Your task to perform on an android device: set the timer Image 0: 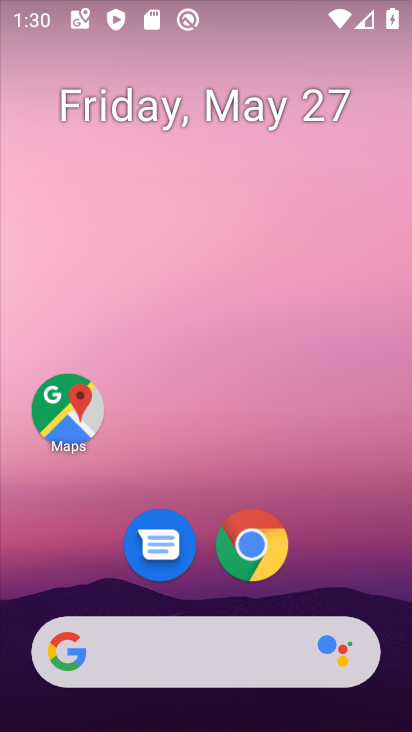
Step 0: drag from (342, 544) to (197, 7)
Your task to perform on an android device: set the timer Image 1: 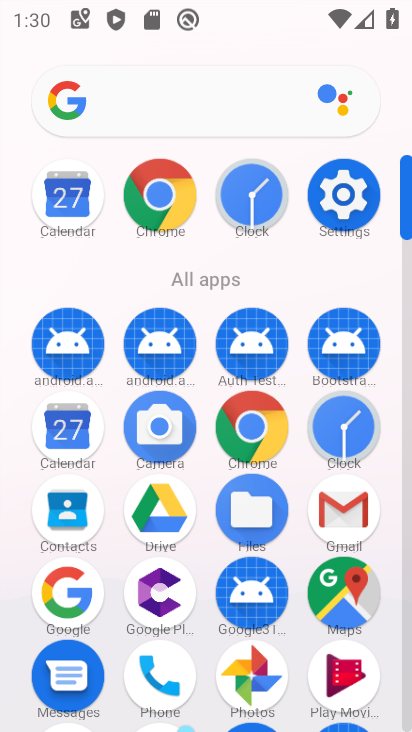
Step 1: click (250, 187)
Your task to perform on an android device: set the timer Image 2: 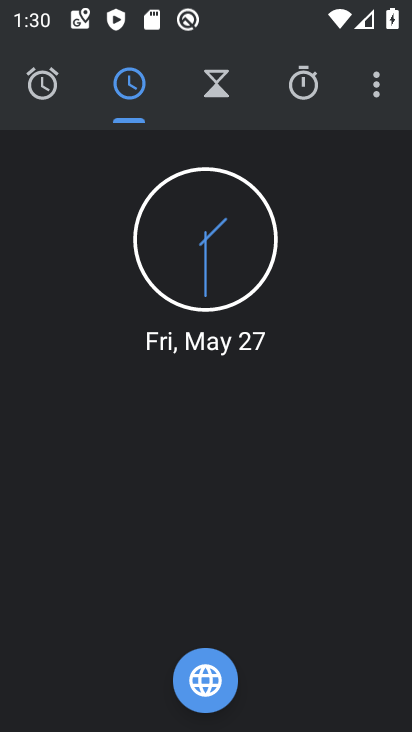
Step 2: click (210, 93)
Your task to perform on an android device: set the timer Image 3: 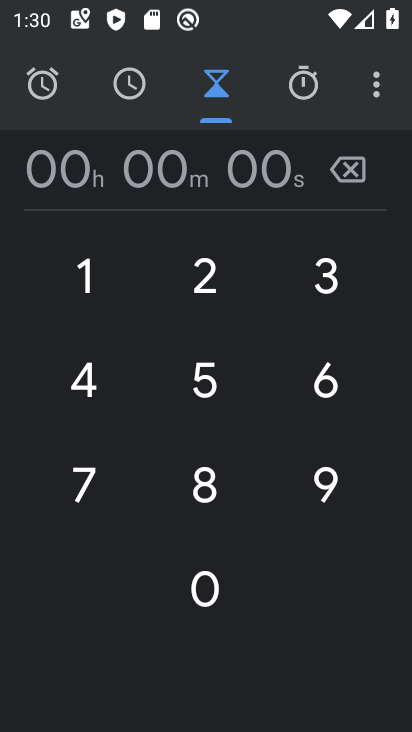
Step 3: click (88, 290)
Your task to perform on an android device: set the timer Image 4: 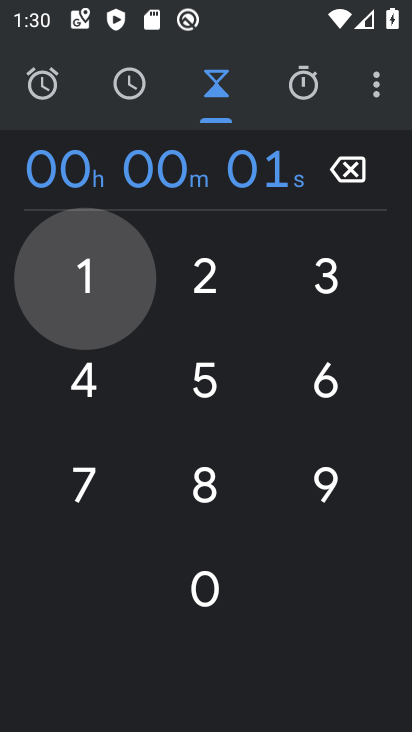
Step 4: click (88, 287)
Your task to perform on an android device: set the timer Image 5: 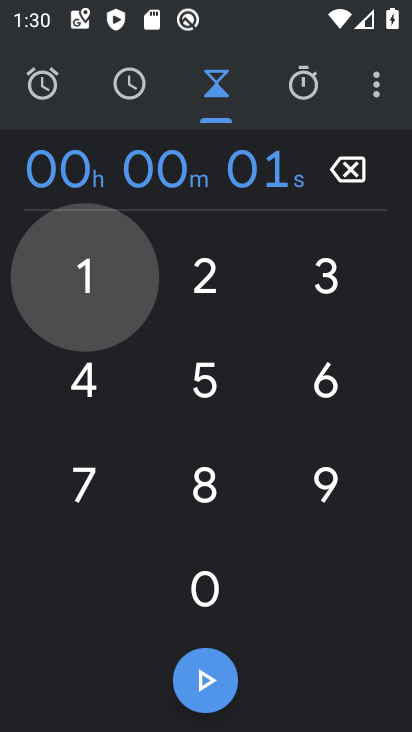
Step 5: click (88, 287)
Your task to perform on an android device: set the timer Image 6: 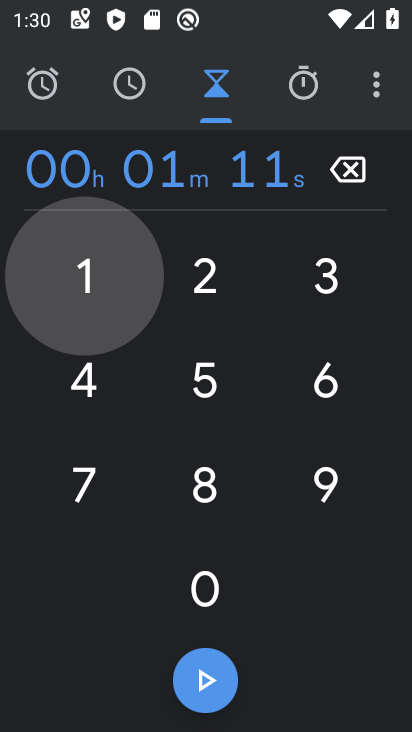
Step 6: click (88, 287)
Your task to perform on an android device: set the timer Image 7: 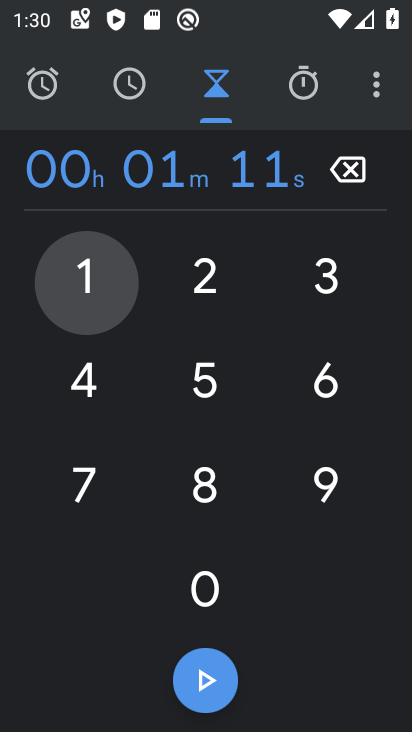
Step 7: click (89, 286)
Your task to perform on an android device: set the timer Image 8: 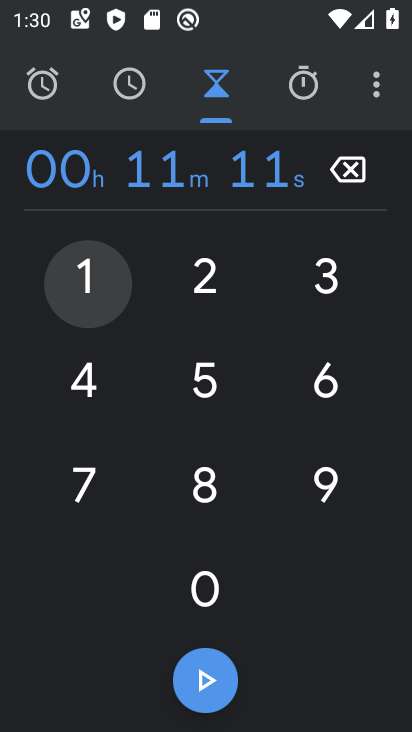
Step 8: click (89, 286)
Your task to perform on an android device: set the timer Image 9: 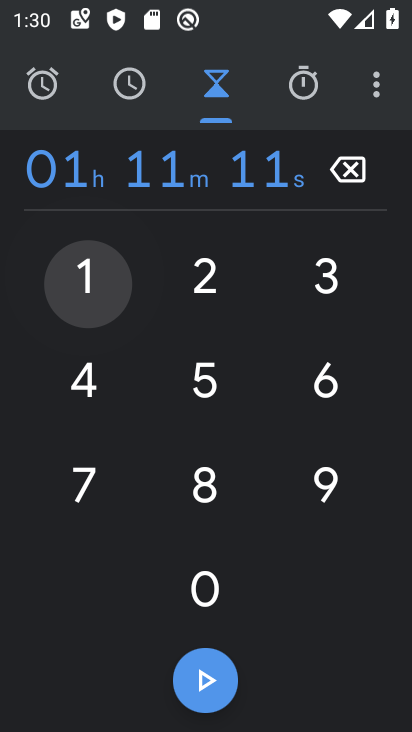
Step 9: click (89, 286)
Your task to perform on an android device: set the timer Image 10: 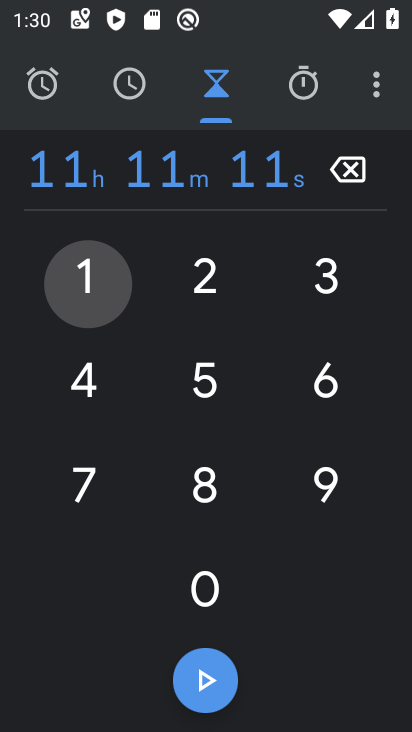
Step 10: click (89, 286)
Your task to perform on an android device: set the timer Image 11: 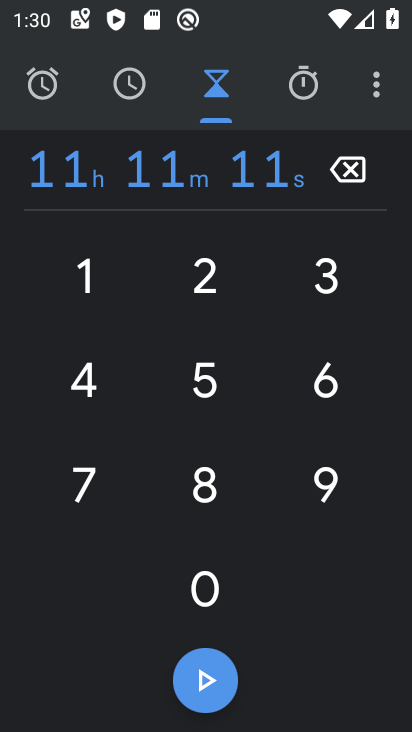
Step 11: click (218, 678)
Your task to perform on an android device: set the timer Image 12: 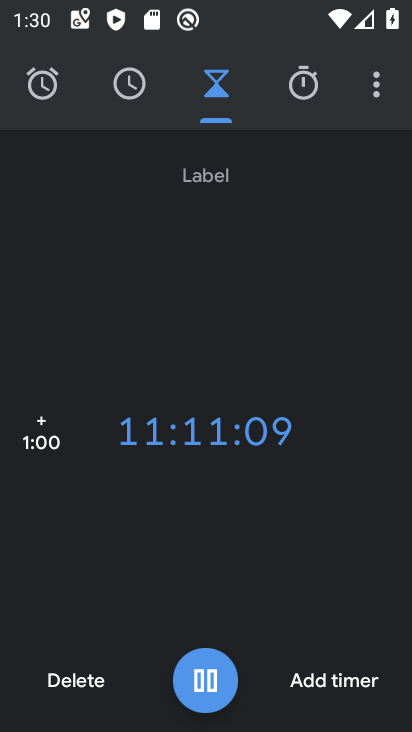
Step 12: task complete